Your task to perform on an android device: Go to Reddit.com Image 0: 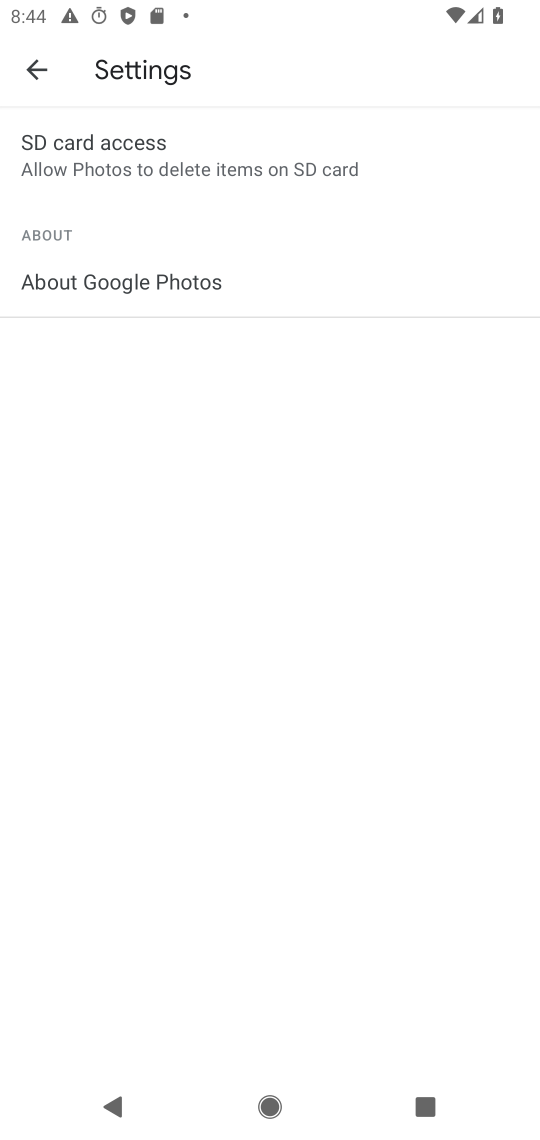
Step 0: press home button
Your task to perform on an android device: Go to Reddit.com Image 1: 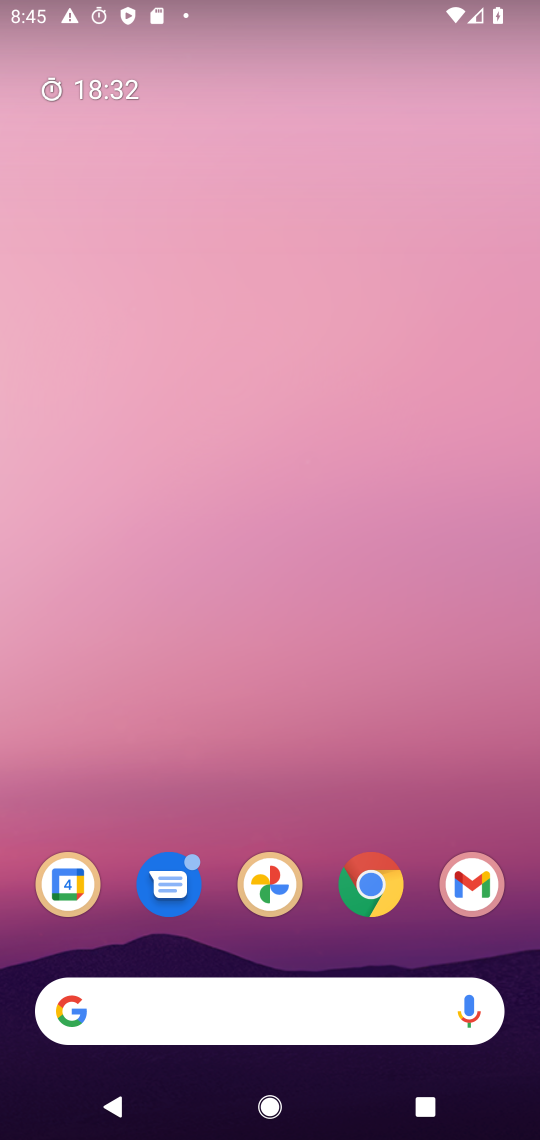
Step 1: click (65, 1012)
Your task to perform on an android device: Go to Reddit.com Image 2: 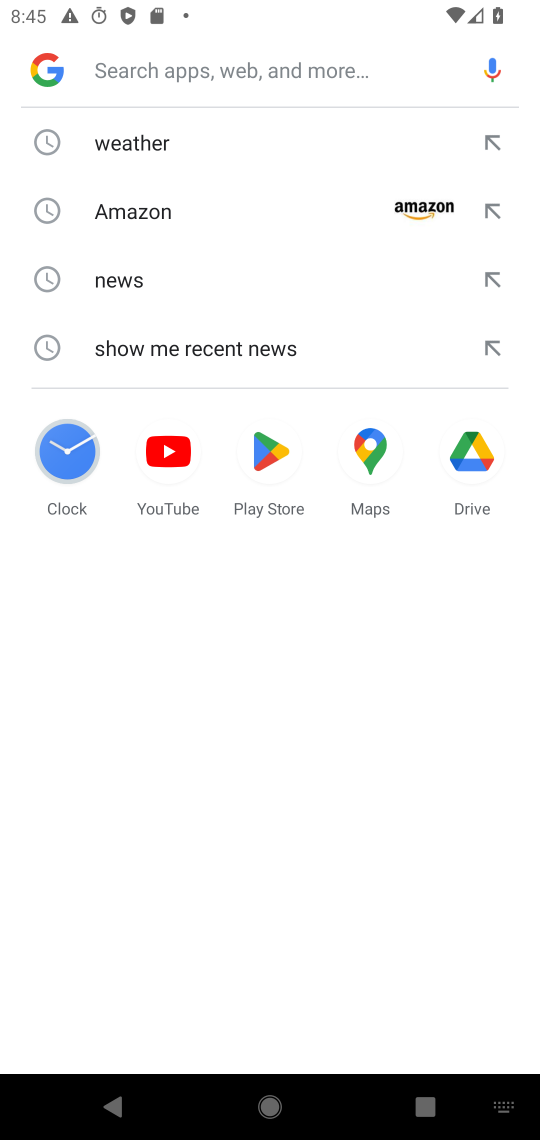
Step 2: type "Reddit.com"
Your task to perform on an android device: Go to Reddit.com Image 3: 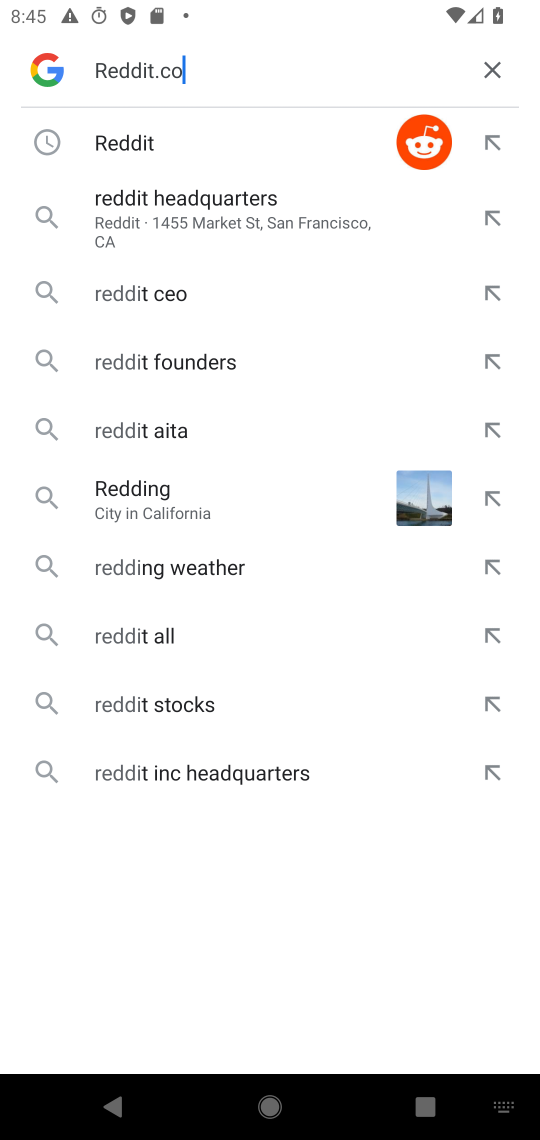
Step 3: press enter
Your task to perform on an android device: Go to Reddit.com Image 4: 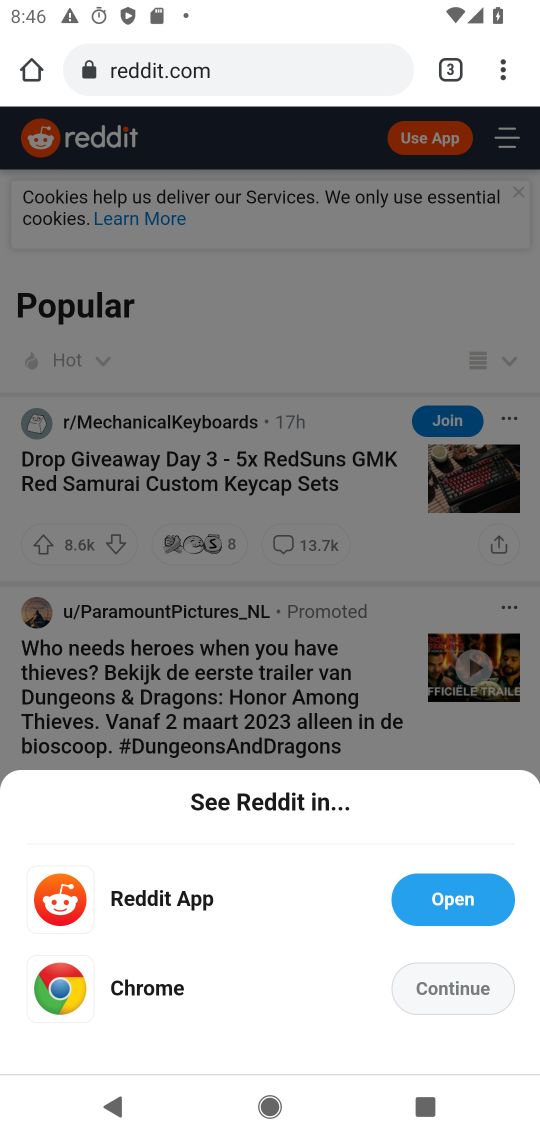
Step 4: task complete